Your task to perform on an android device: star an email in the gmail app Image 0: 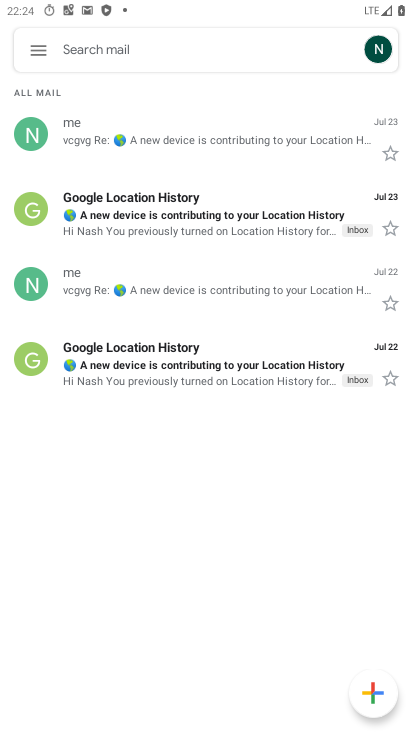
Step 0: press home button
Your task to perform on an android device: star an email in the gmail app Image 1: 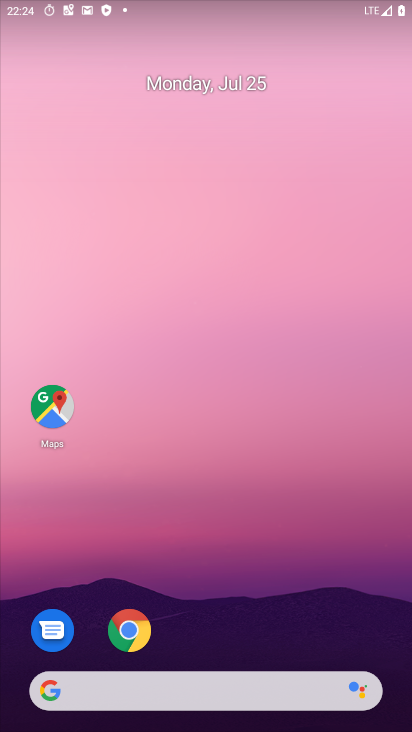
Step 1: drag from (292, 573) to (271, 51)
Your task to perform on an android device: star an email in the gmail app Image 2: 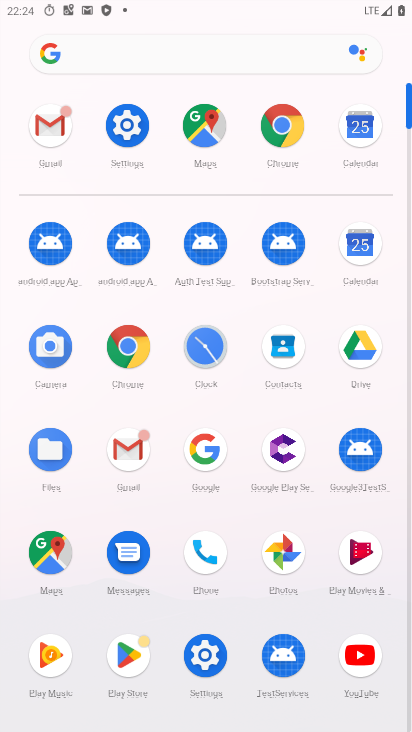
Step 2: click (55, 119)
Your task to perform on an android device: star an email in the gmail app Image 3: 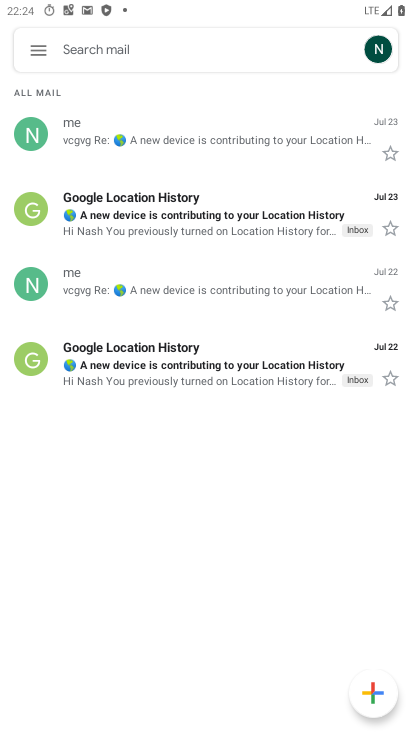
Step 3: click (389, 156)
Your task to perform on an android device: star an email in the gmail app Image 4: 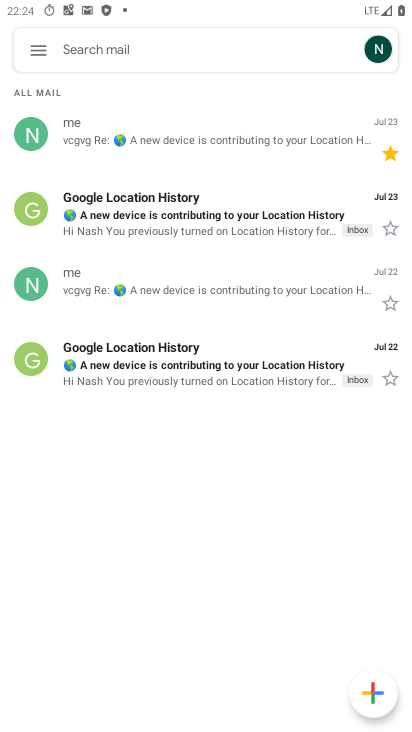
Step 4: task complete